Your task to perform on an android device: Go to internet settings Image 0: 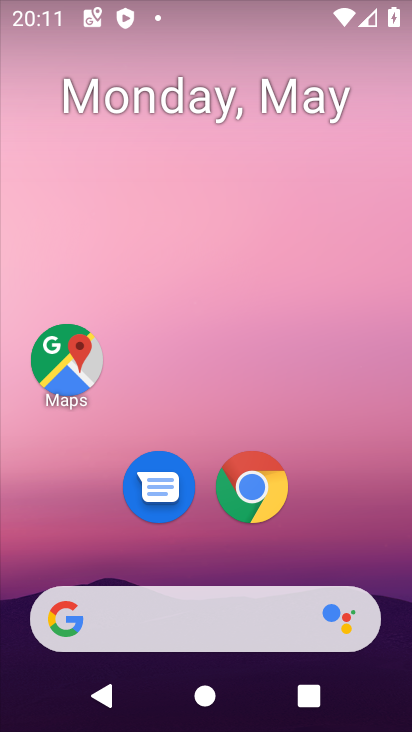
Step 0: drag from (375, 558) to (383, 93)
Your task to perform on an android device: Go to internet settings Image 1: 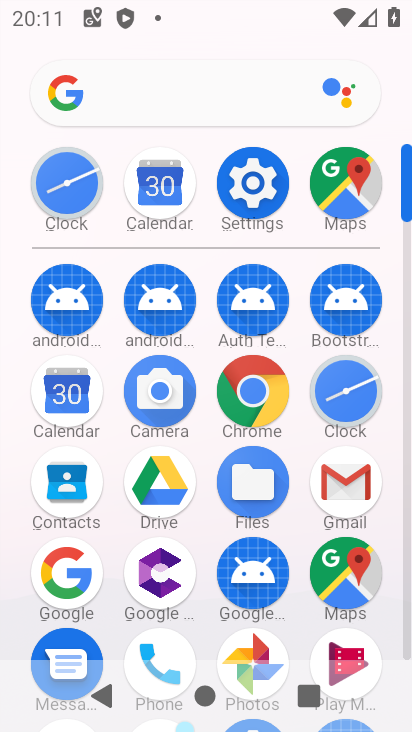
Step 1: click (265, 180)
Your task to perform on an android device: Go to internet settings Image 2: 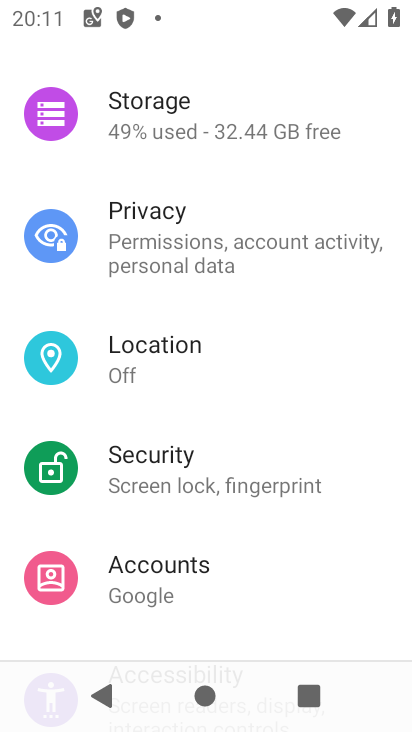
Step 2: drag from (343, 181) to (347, 327)
Your task to perform on an android device: Go to internet settings Image 3: 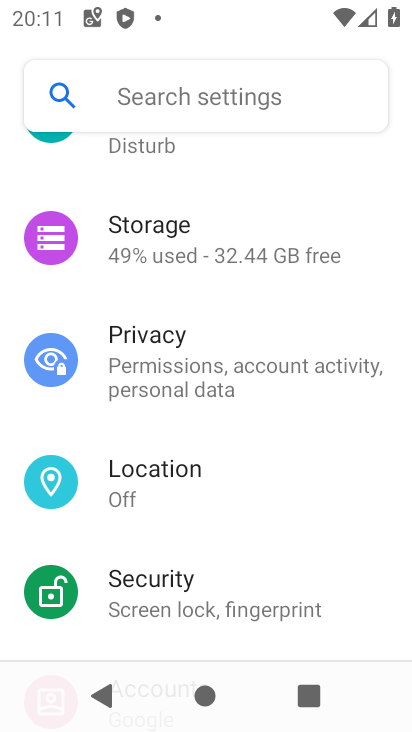
Step 3: drag from (370, 186) to (358, 314)
Your task to perform on an android device: Go to internet settings Image 4: 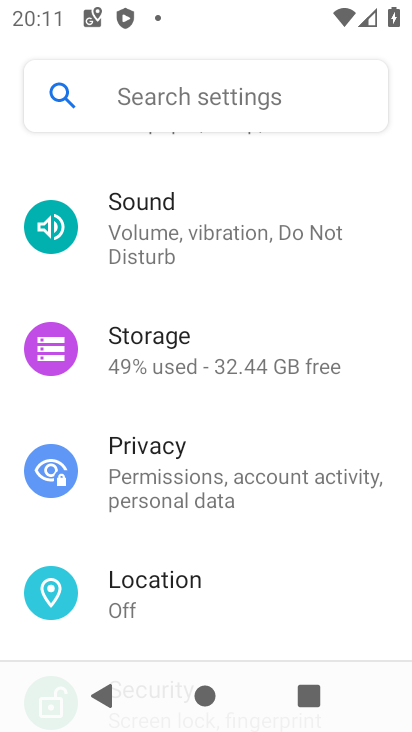
Step 4: drag from (354, 194) to (359, 356)
Your task to perform on an android device: Go to internet settings Image 5: 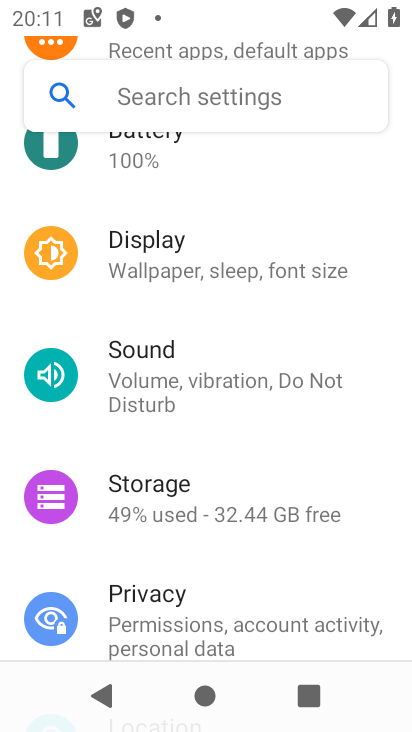
Step 5: drag from (365, 195) to (361, 349)
Your task to perform on an android device: Go to internet settings Image 6: 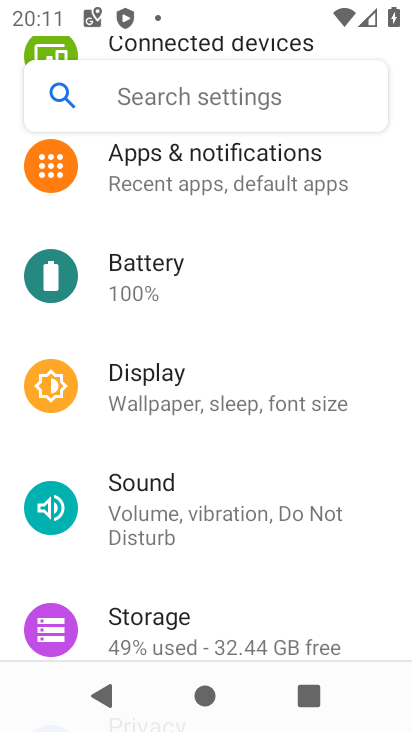
Step 6: drag from (379, 184) to (382, 360)
Your task to perform on an android device: Go to internet settings Image 7: 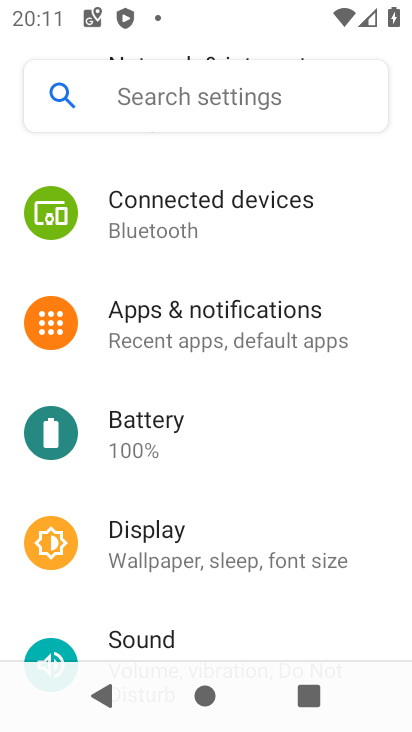
Step 7: drag from (377, 227) to (380, 381)
Your task to perform on an android device: Go to internet settings Image 8: 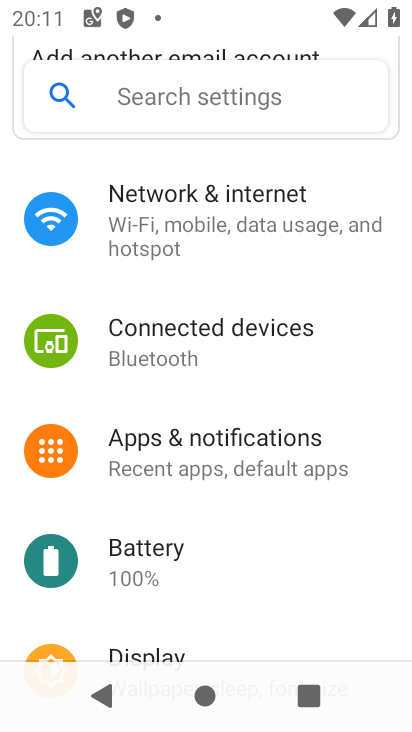
Step 8: click (336, 226)
Your task to perform on an android device: Go to internet settings Image 9: 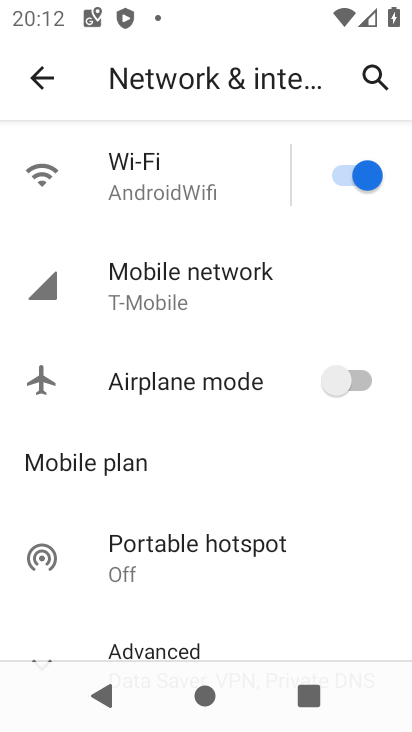
Step 9: task complete